Your task to perform on an android device: Open the calendar and show me this week's events? Image 0: 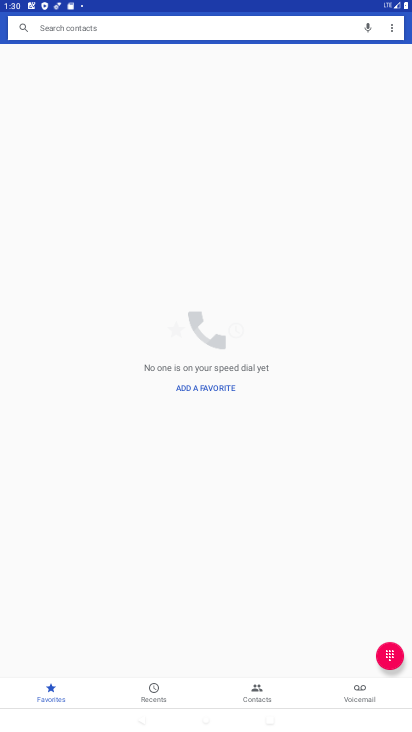
Step 0: press home button
Your task to perform on an android device: Open the calendar and show me this week's events? Image 1: 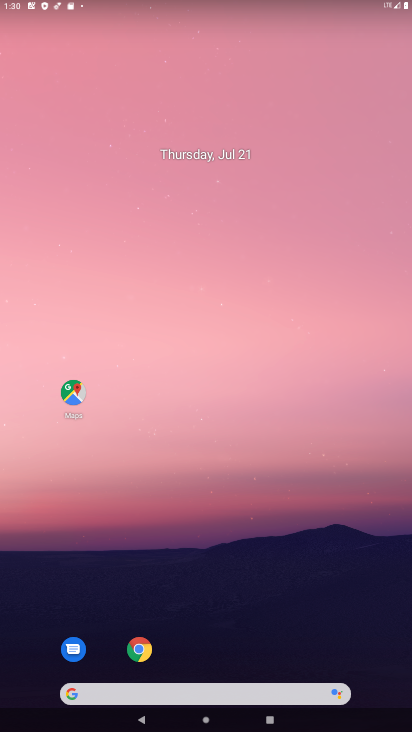
Step 1: drag from (230, 729) to (227, 109)
Your task to perform on an android device: Open the calendar and show me this week's events? Image 2: 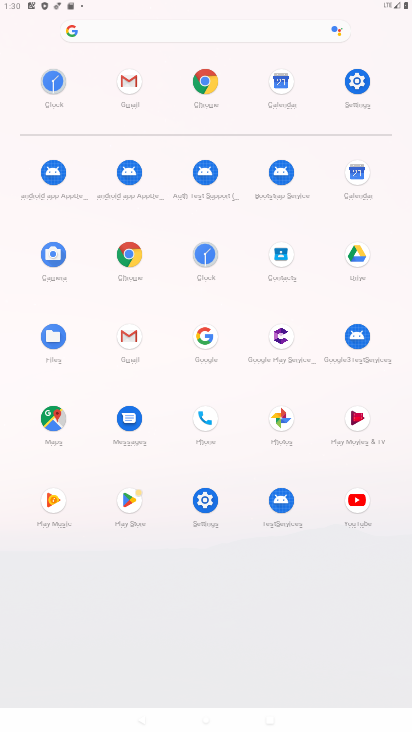
Step 2: click (359, 171)
Your task to perform on an android device: Open the calendar and show me this week's events? Image 3: 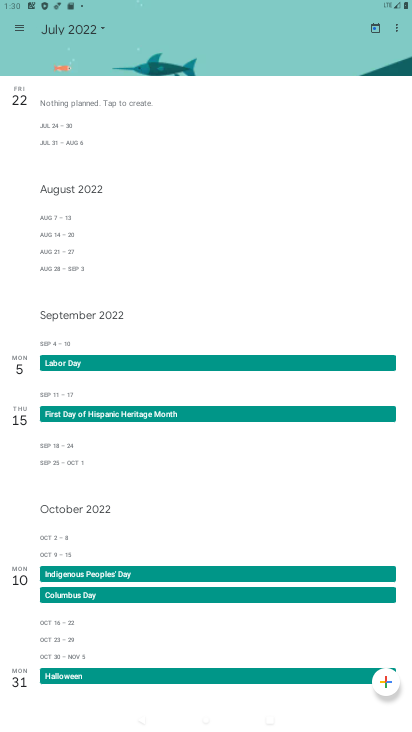
Step 3: click (104, 26)
Your task to perform on an android device: Open the calendar and show me this week's events? Image 4: 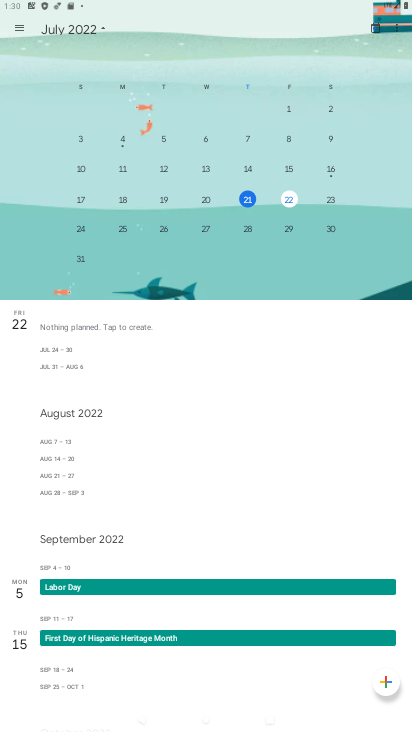
Step 4: click (18, 23)
Your task to perform on an android device: Open the calendar and show me this week's events? Image 5: 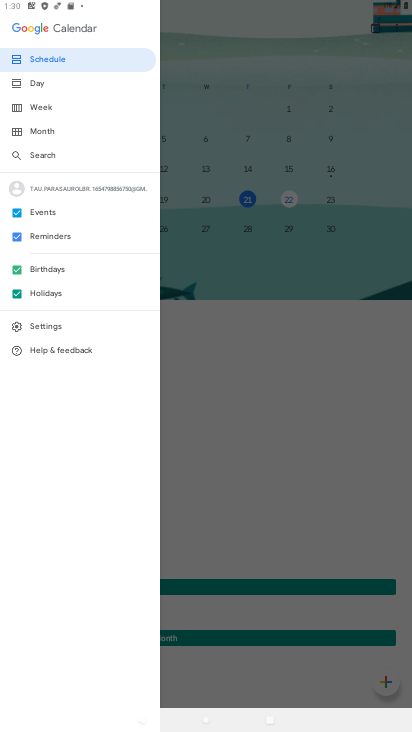
Step 5: click (18, 298)
Your task to perform on an android device: Open the calendar and show me this week's events? Image 6: 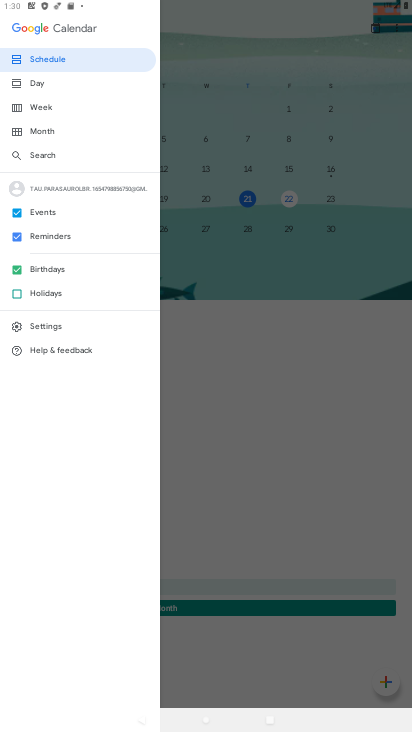
Step 6: click (17, 267)
Your task to perform on an android device: Open the calendar and show me this week's events? Image 7: 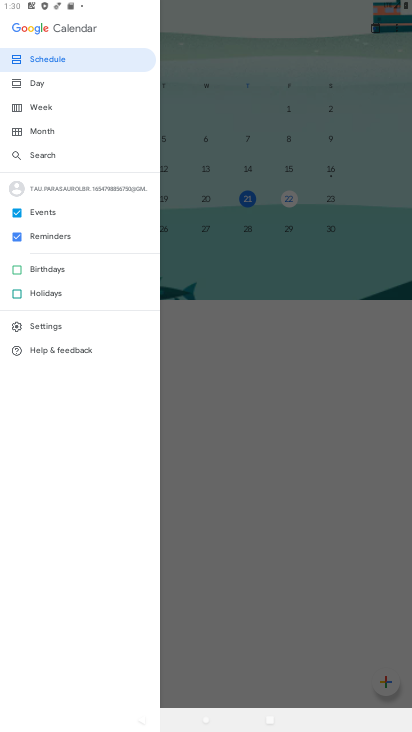
Step 7: click (19, 231)
Your task to perform on an android device: Open the calendar and show me this week's events? Image 8: 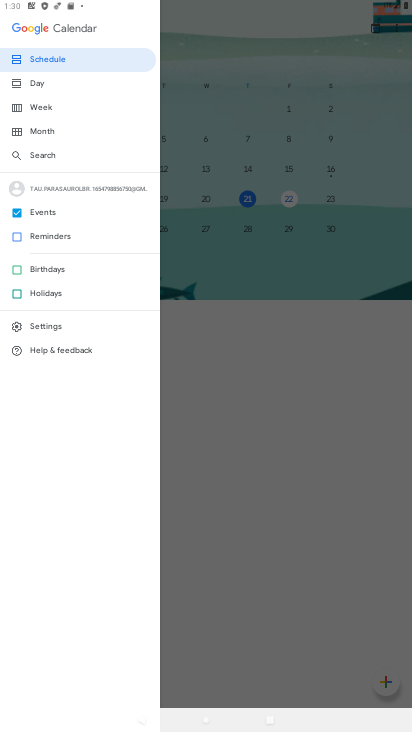
Step 8: click (41, 104)
Your task to perform on an android device: Open the calendar and show me this week's events? Image 9: 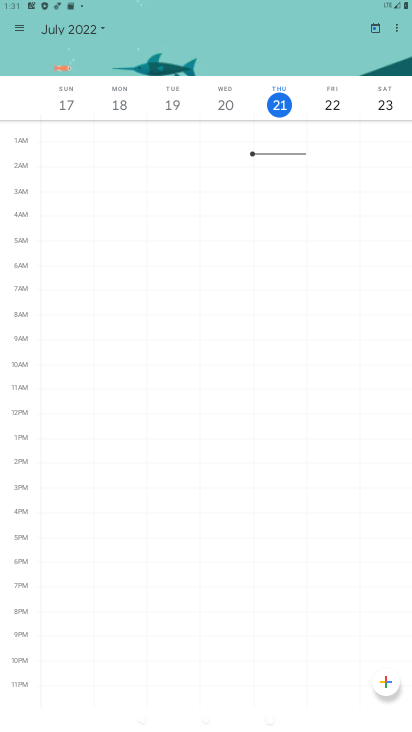
Step 9: task complete